Your task to perform on an android device: Open Amazon Image 0: 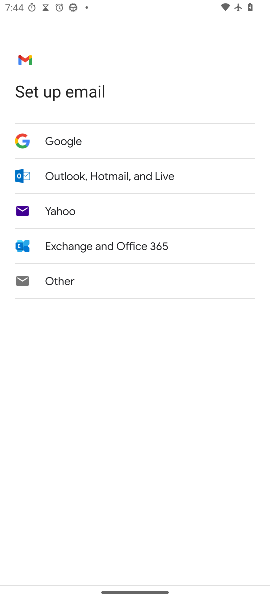
Step 0: press home button
Your task to perform on an android device: Open Amazon Image 1: 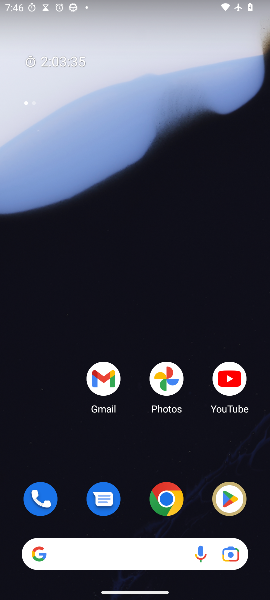
Step 1: drag from (100, 474) to (195, 17)
Your task to perform on an android device: Open Amazon Image 2: 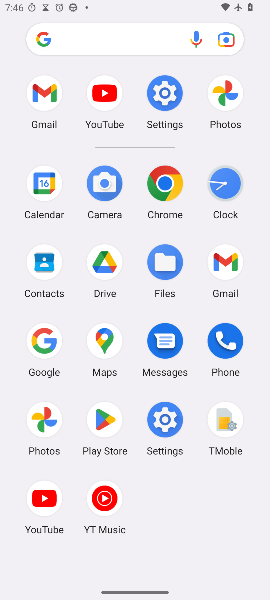
Step 2: click (167, 180)
Your task to perform on an android device: Open Amazon Image 3: 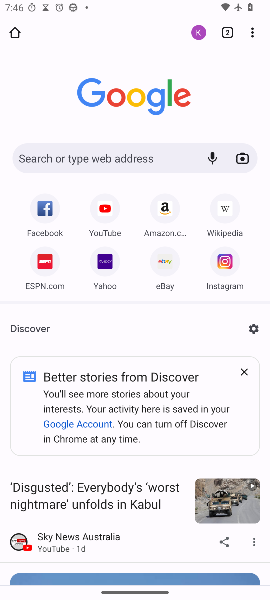
Step 3: click (171, 209)
Your task to perform on an android device: Open Amazon Image 4: 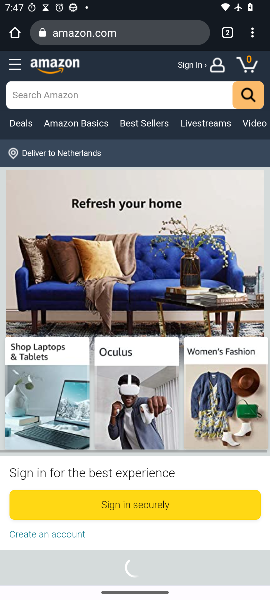
Step 4: task complete